Your task to perform on an android device: search for starred emails in the gmail app Image 0: 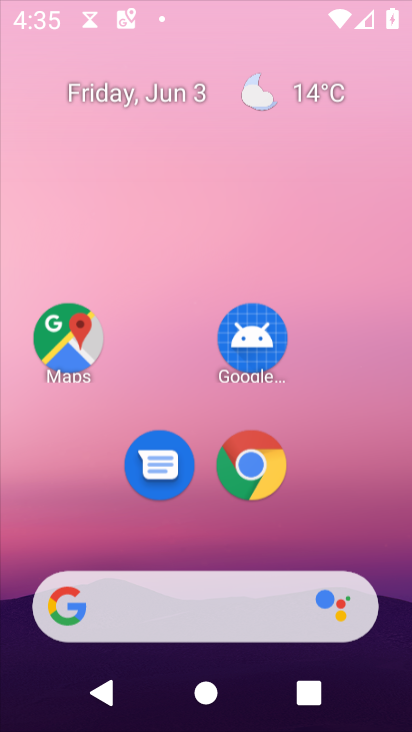
Step 0: click (377, 10)
Your task to perform on an android device: search for starred emails in the gmail app Image 1: 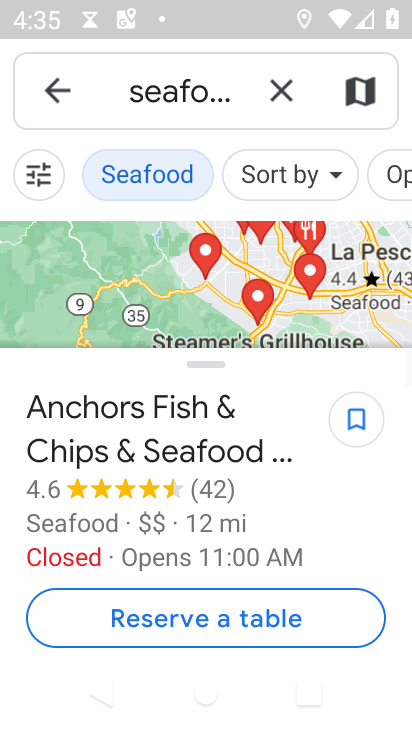
Step 1: press home button
Your task to perform on an android device: search for starred emails in the gmail app Image 2: 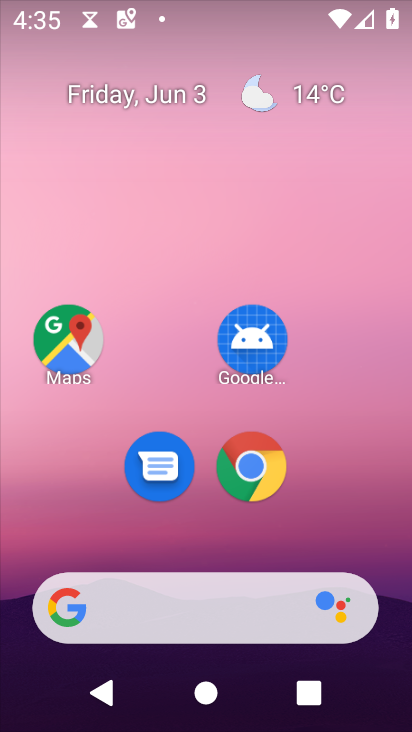
Step 2: drag from (364, 478) to (348, 89)
Your task to perform on an android device: search for starred emails in the gmail app Image 3: 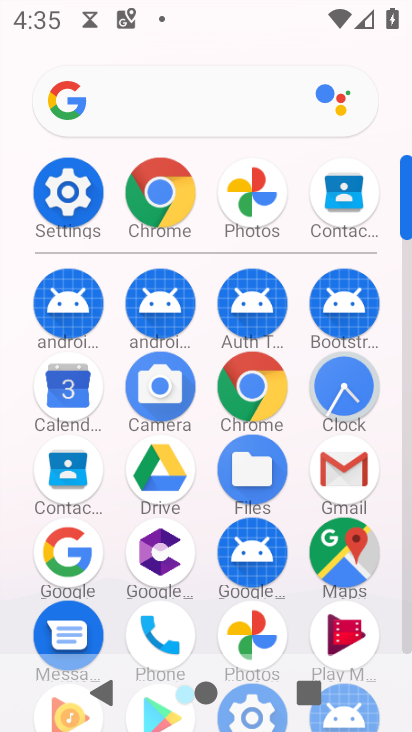
Step 3: click (345, 482)
Your task to perform on an android device: search for starred emails in the gmail app Image 4: 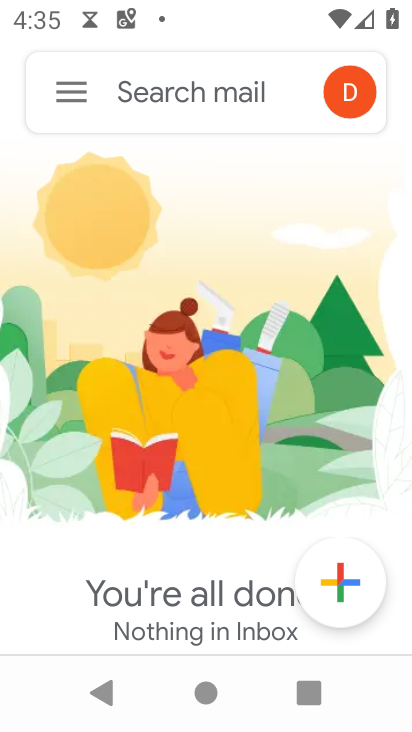
Step 4: click (81, 94)
Your task to perform on an android device: search for starred emails in the gmail app Image 5: 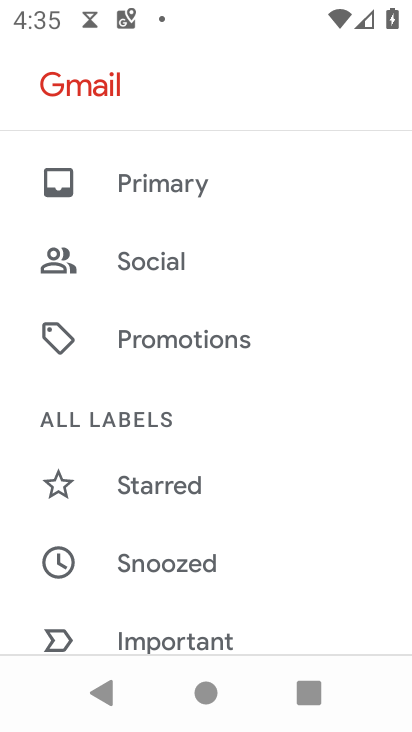
Step 5: click (194, 495)
Your task to perform on an android device: search for starred emails in the gmail app Image 6: 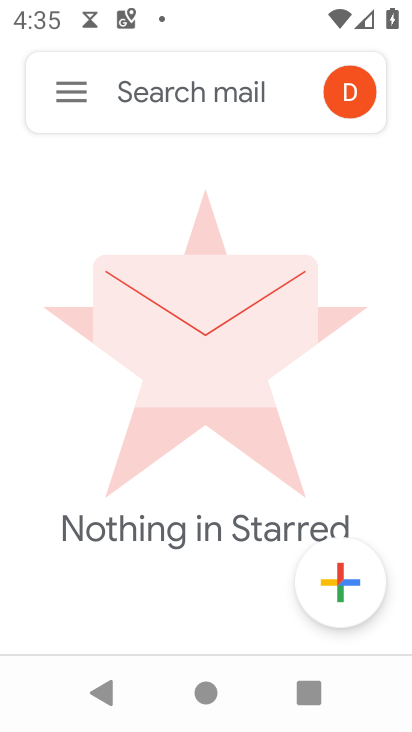
Step 6: task complete